Your task to perform on an android device: move a message to another label in the gmail app Image 0: 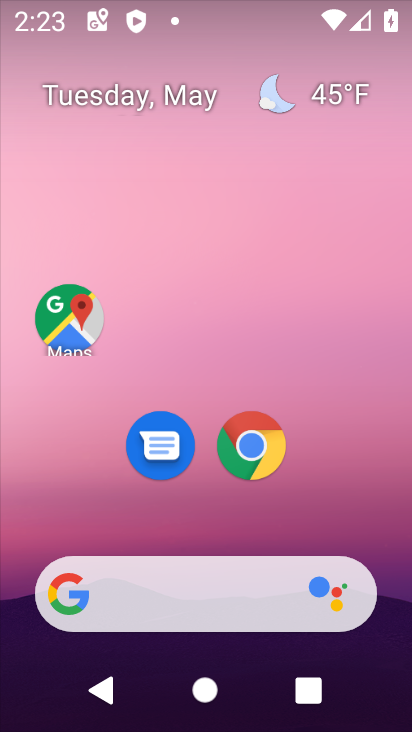
Step 0: drag from (238, 523) to (381, 0)
Your task to perform on an android device: move a message to another label in the gmail app Image 1: 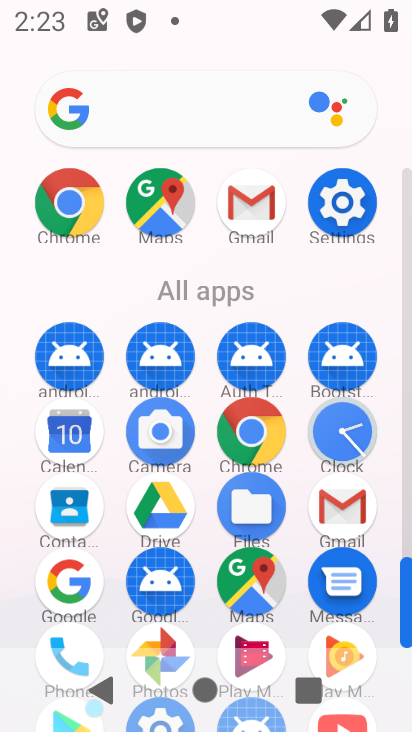
Step 1: click (253, 181)
Your task to perform on an android device: move a message to another label in the gmail app Image 2: 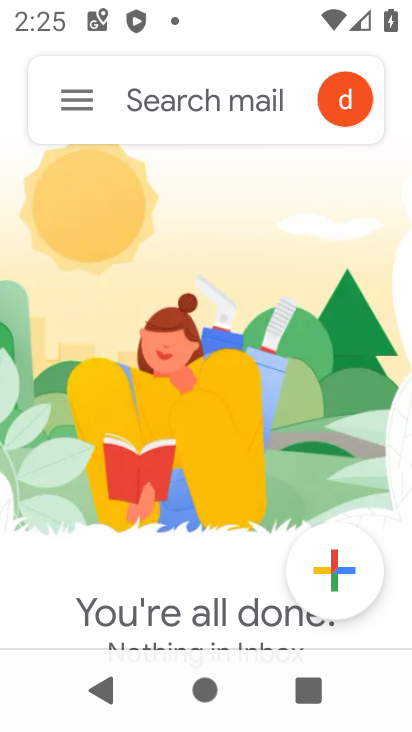
Step 2: task complete